Your task to perform on an android device: turn on translation in the chrome app Image 0: 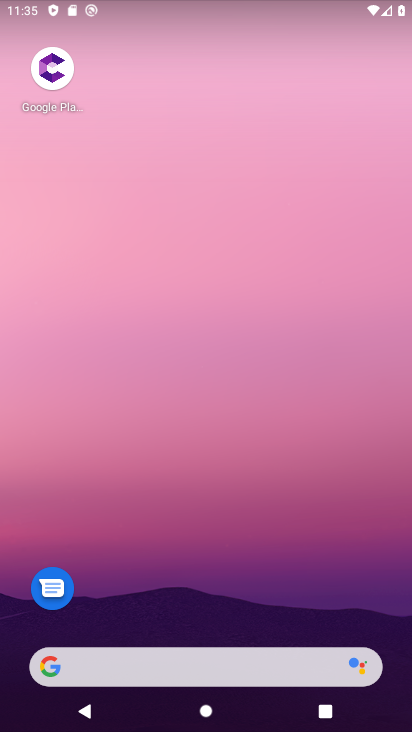
Step 0: drag from (265, 575) to (273, 279)
Your task to perform on an android device: turn on translation in the chrome app Image 1: 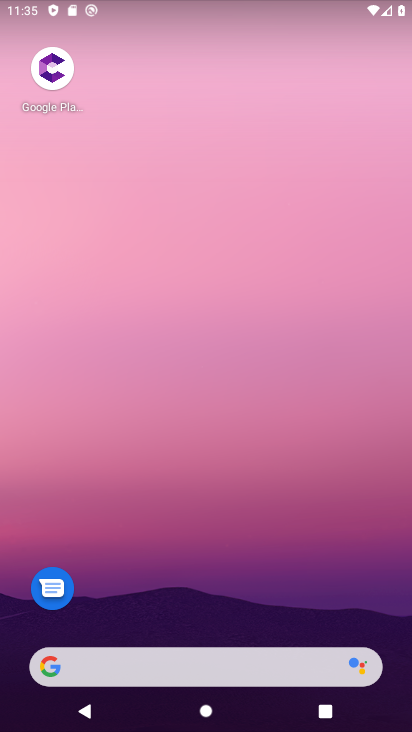
Step 1: drag from (260, 579) to (310, 199)
Your task to perform on an android device: turn on translation in the chrome app Image 2: 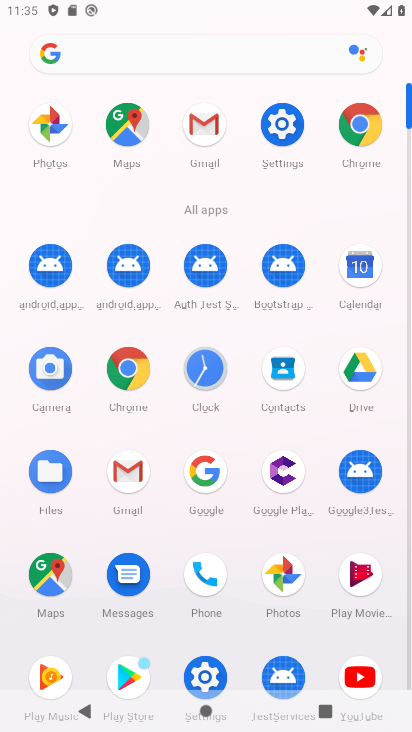
Step 2: click (348, 122)
Your task to perform on an android device: turn on translation in the chrome app Image 3: 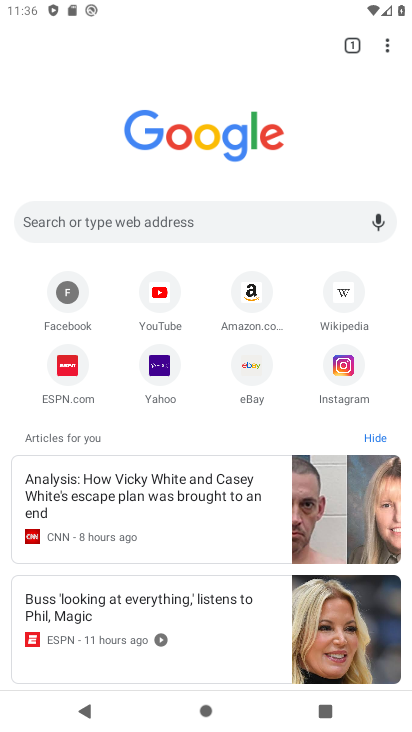
Step 3: click (377, 40)
Your task to perform on an android device: turn on translation in the chrome app Image 4: 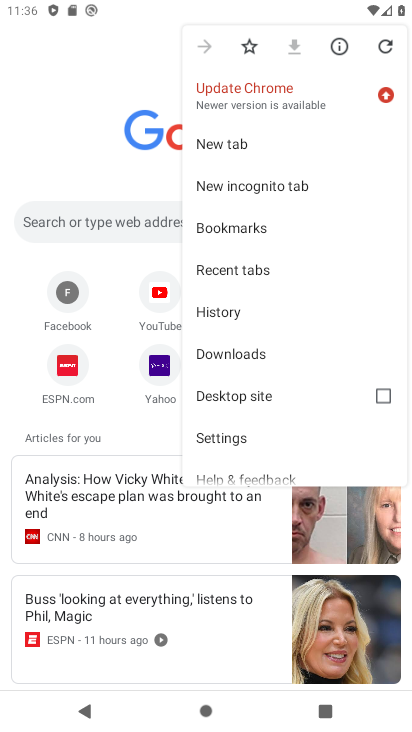
Step 4: click (231, 439)
Your task to perform on an android device: turn on translation in the chrome app Image 5: 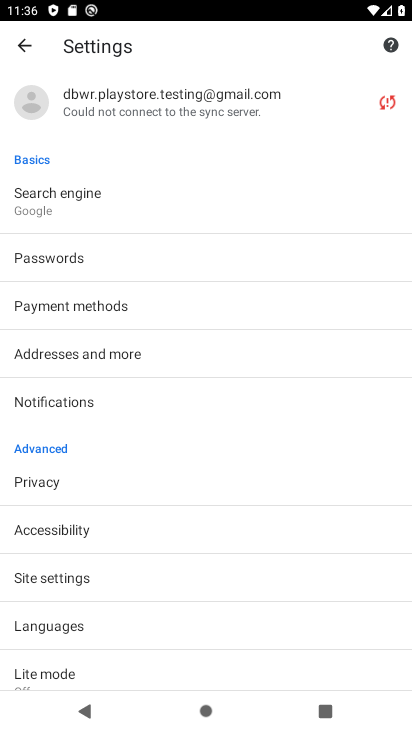
Step 5: click (66, 625)
Your task to perform on an android device: turn on translation in the chrome app Image 6: 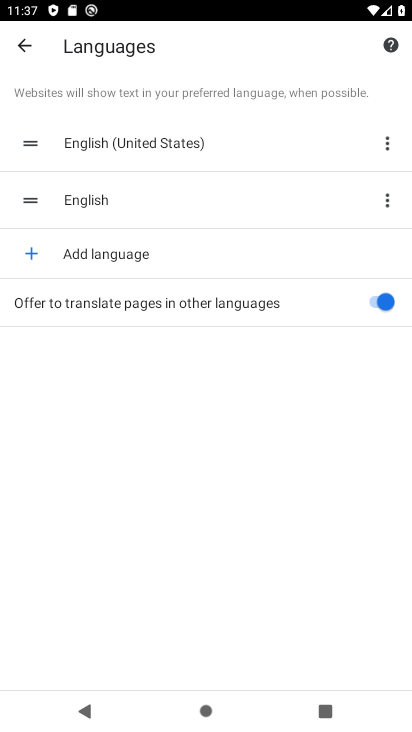
Step 6: task complete